Your task to perform on an android device: Open wifi settings Image 0: 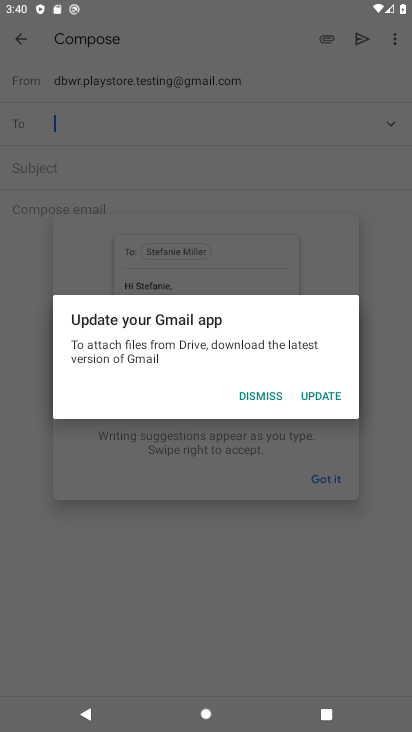
Step 0: press home button
Your task to perform on an android device: Open wifi settings Image 1: 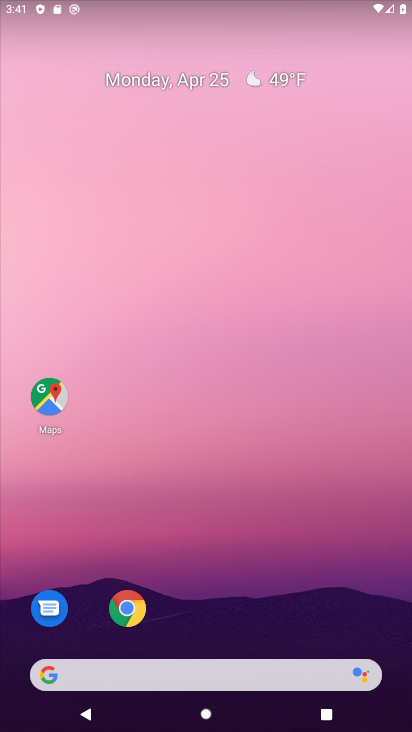
Step 1: drag from (244, 605) to (316, 2)
Your task to perform on an android device: Open wifi settings Image 2: 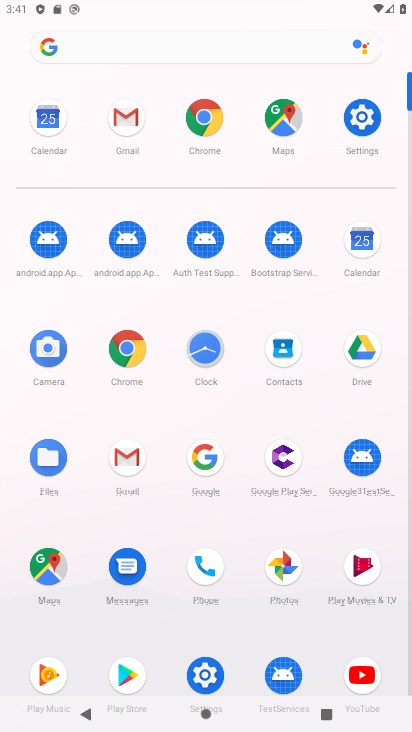
Step 2: click (366, 137)
Your task to perform on an android device: Open wifi settings Image 3: 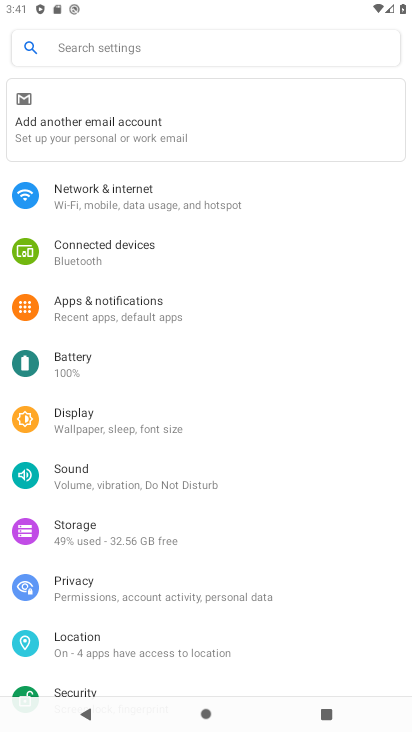
Step 3: click (254, 207)
Your task to perform on an android device: Open wifi settings Image 4: 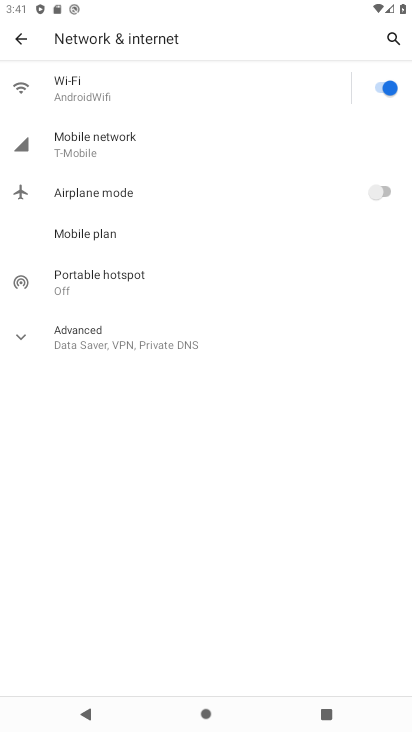
Step 4: click (141, 96)
Your task to perform on an android device: Open wifi settings Image 5: 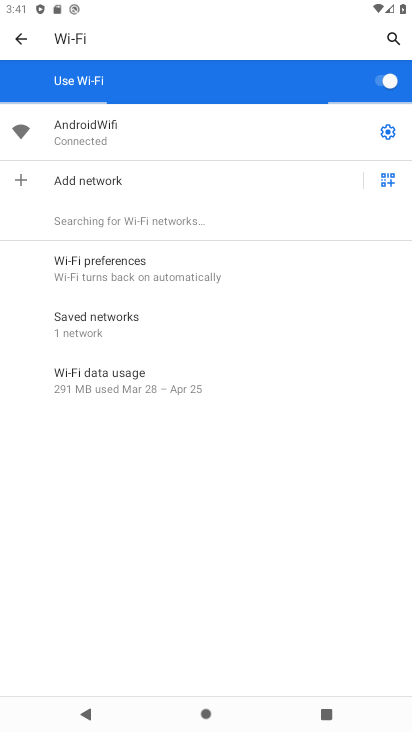
Step 5: task complete